Your task to perform on an android device: turn off notifications in google photos Image 0: 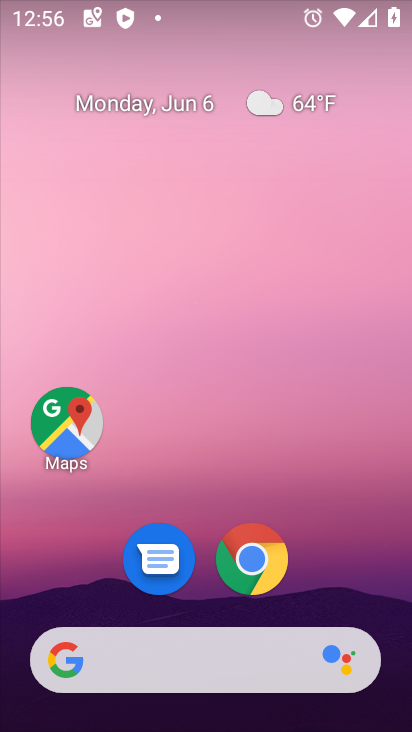
Step 0: drag from (307, 695) to (192, 123)
Your task to perform on an android device: turn off notifications in google photos Image 1: 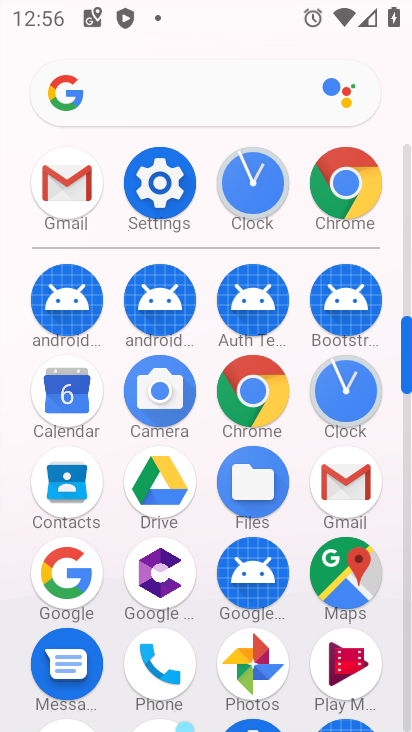
Step 1: click (267, 652)
Your task to perform on an android device: turn off notifications in google photos Image 2: 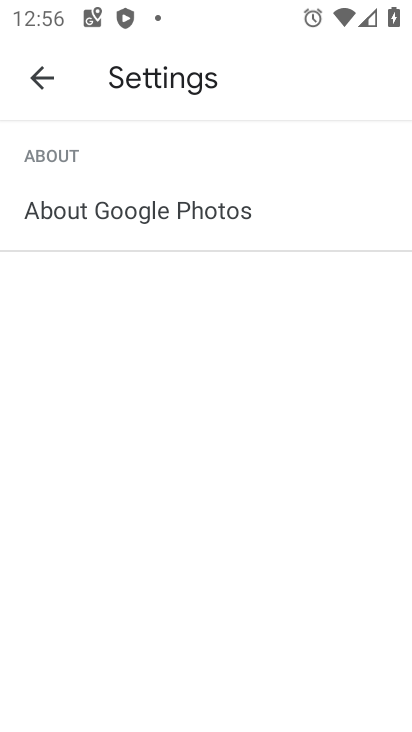
Step 2: click (31, 87)
Your task to perform on an android device: turn off notifications in google photos Image 3: 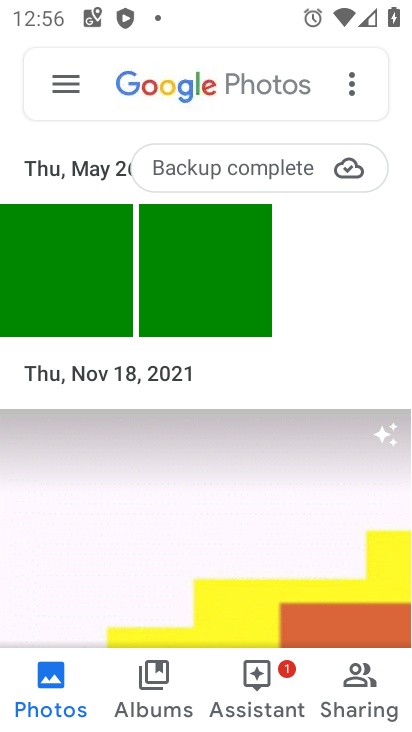
Step 3: click (67, 76)
Your task to perform on an android device: turn off notifications in google photos Image 4: 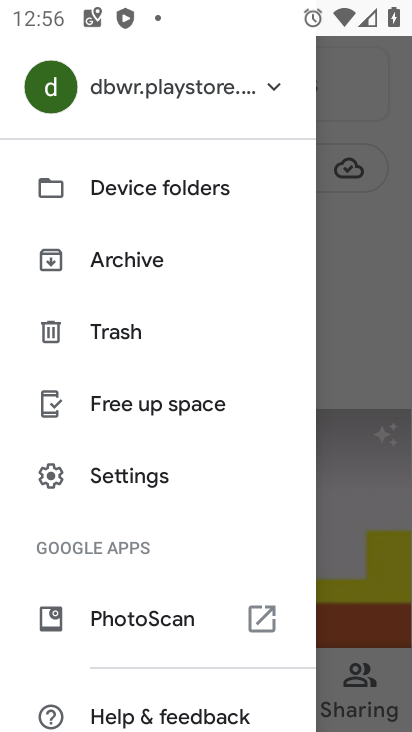
Step 4: click (133, 481)
Your task to perform on an android device: turn off notifications in google photos Image 5: 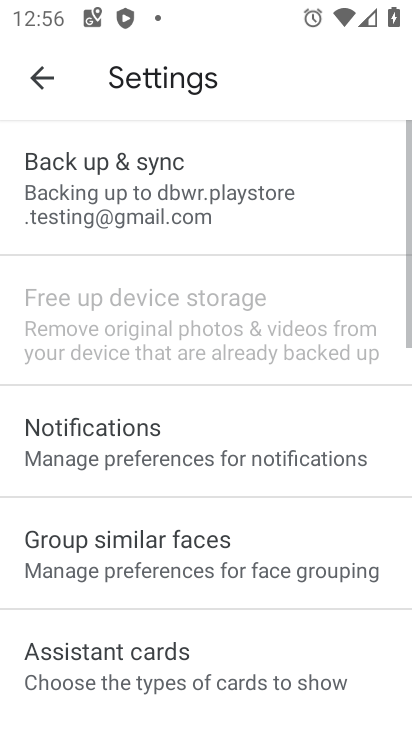
Step 5: click (135, 190)
Your task to perform on an android device: turn off notifications in google photos Image 6: 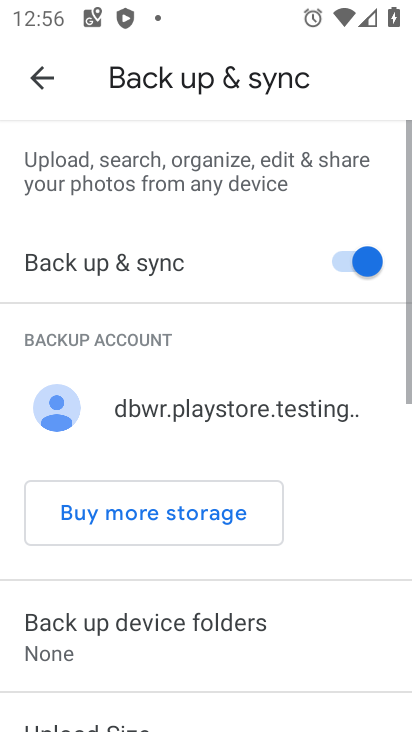
Step 6: click (24, 76)
Your task to perform on an android device: turn off notifications in google photos Image 7: 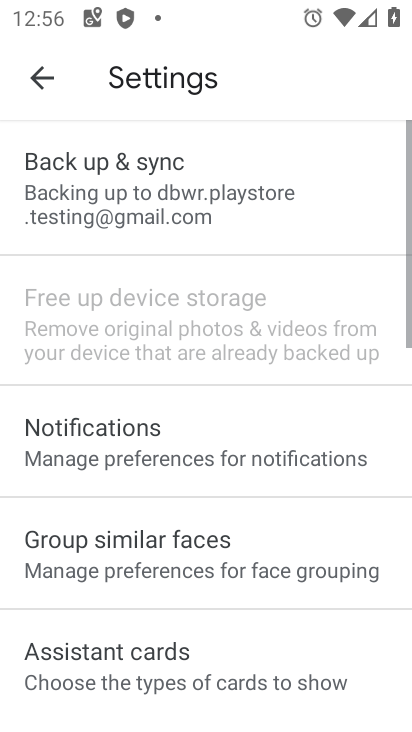
Step 7: click (91, 445)
Your task to perform on an android device: turn off notifications in google photos Image 8: 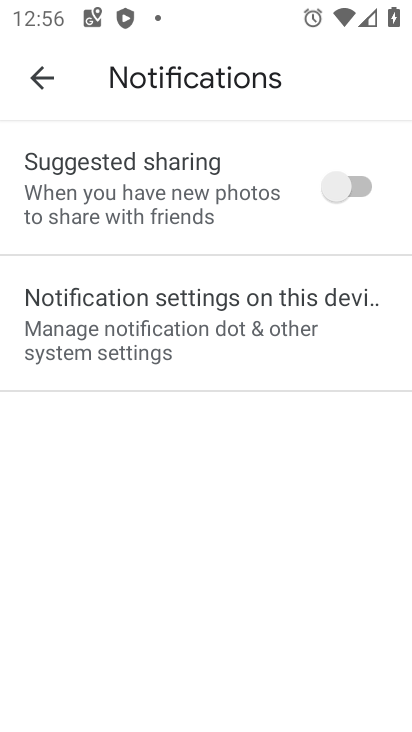
Step 8: click (281, 308)
Your task to perform on an android device: turn off notifications in google photos Image 9: 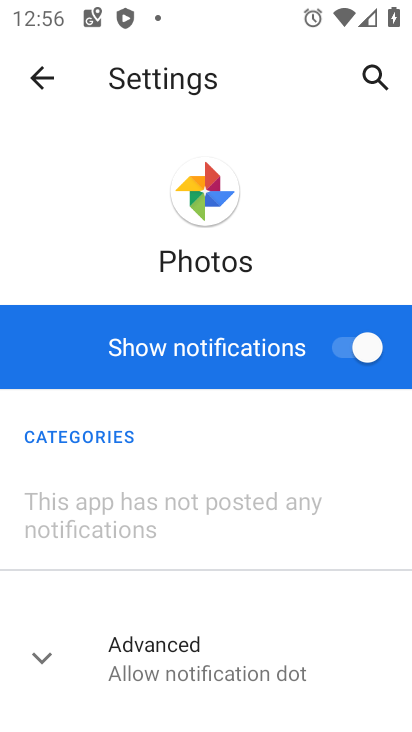
Step 9: click (356, 361)
Your task to perform on an android device: turn off notifications in google photos Image 10: 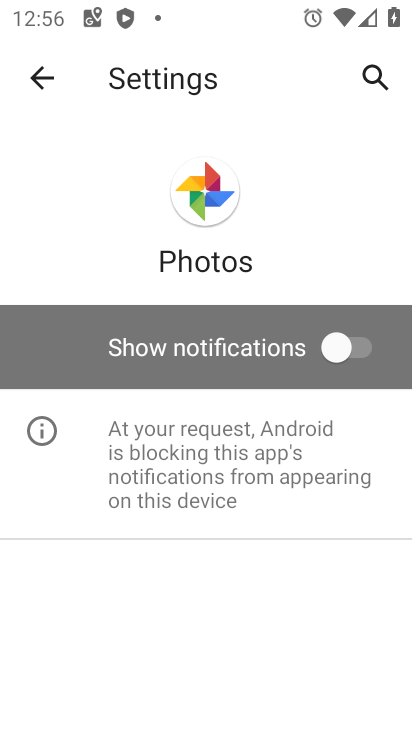
Step 10: task complete